Your task to perform on an android device: Set the phone to "Do not disturb". Image 0: 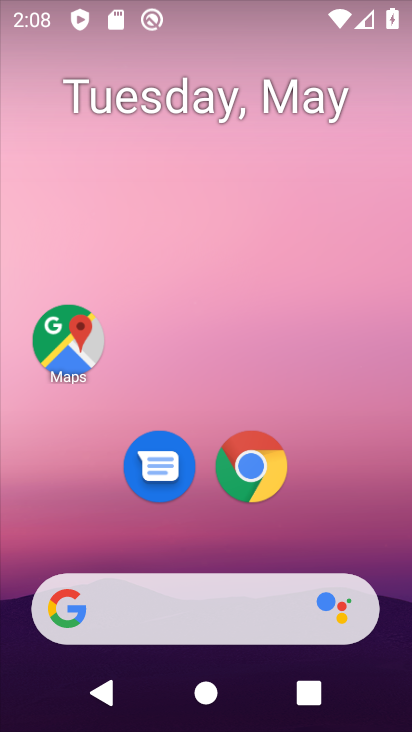
Step 0: drag from (331, 537) to (329, 20)
Your task to perform on an android device: Set the phone to "Do not disturb". Image 1: 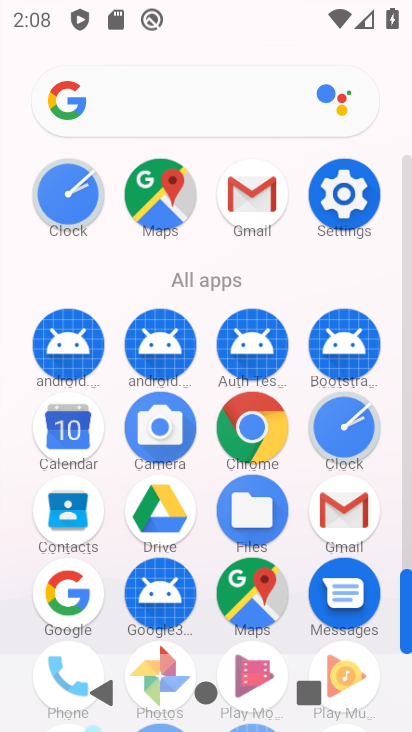
Step 1: click (339, 210)
Your task to perform on an android device: Set the phone to "Do not disturb". Image 2: 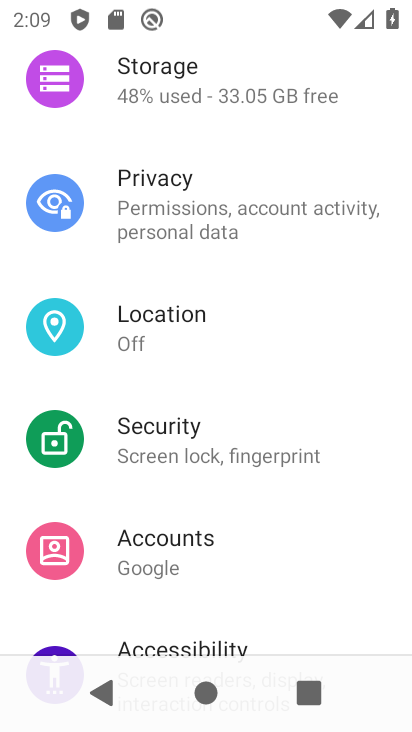
Step 2: drag from (139, 508) to (175, 241)
Your task to perform on an android device: Set the phone to "Do not disturb". Image 3: 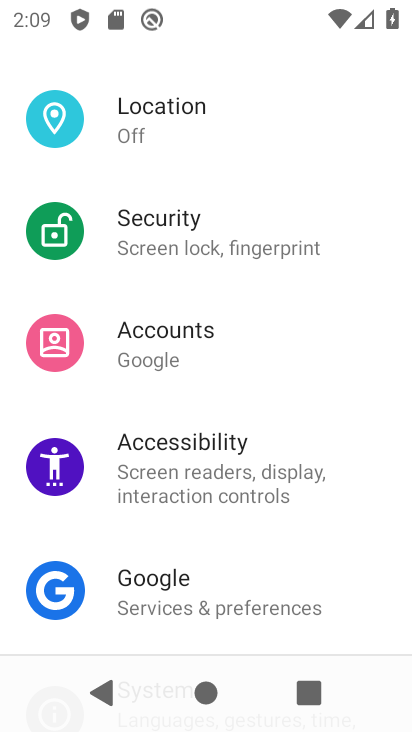
Step 3: drag from (214, 555) to (203, 730)
Your task to perform on an android device: Set the phone to "Do not disturb". Image 4: 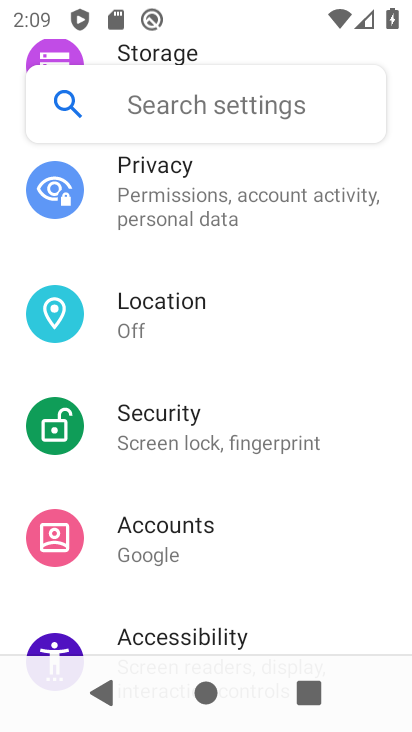
Step 4: drag from (271, 307) to (283, 633)
Your task to perform on an android device: Set the phone to "Do not disturb". Image 5: 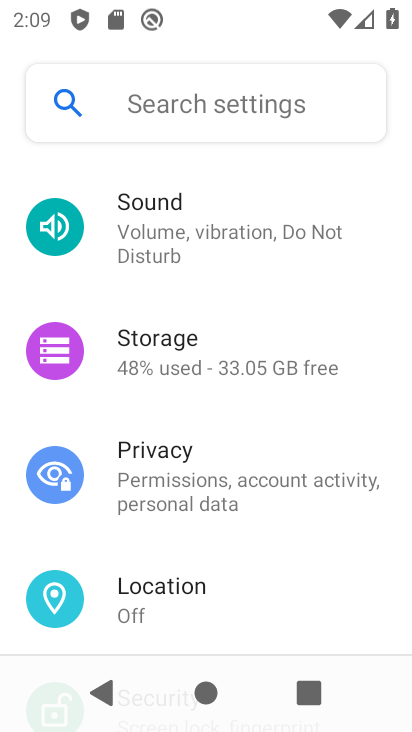
Step 5: click (247, 247)
Your task to perform on an android device: Set the phone to "Do not disturb". Image 6: 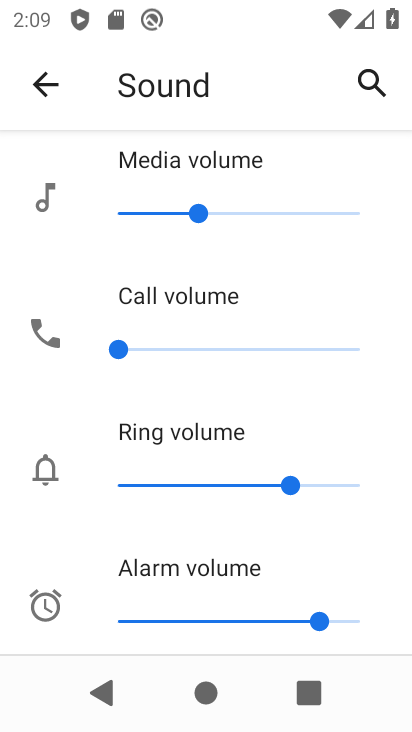
Step 6: drag from (144, 650) to (254, 264)
Your task to perform on an android device: Set the phone to "Do not disturb". Image 7: 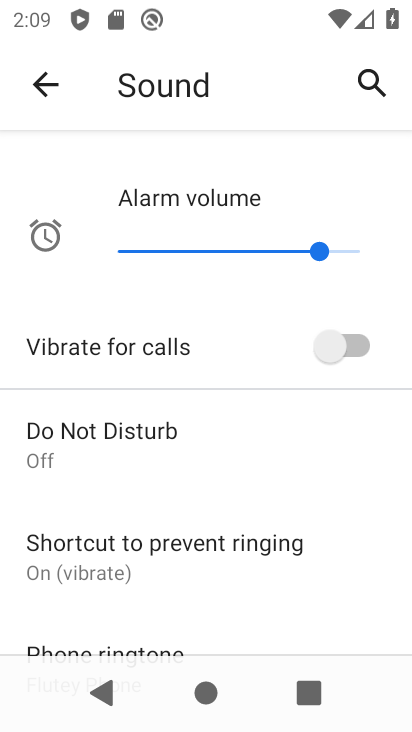
Step 7: click (117, 436)
Your task to perform on an android device: Set the phone to "Do not disturb". Image 8: 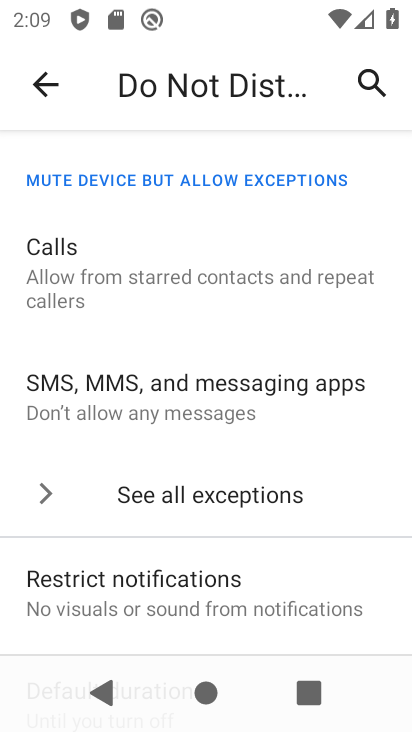
Step 8: drag from (172, 566) to (181, 184)
Your task to perform on an android device: Set the phone to "Do not disturb". Image 9: 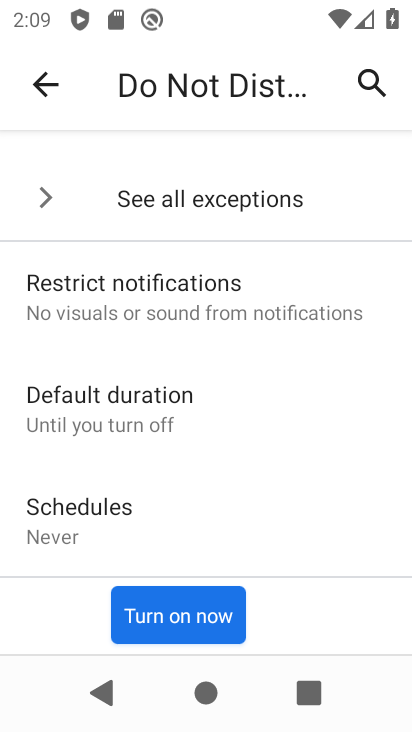
Step 9: click (159, 602)
Your task to perform on an android device: Set the phone to "Do not disturb". Image 10: 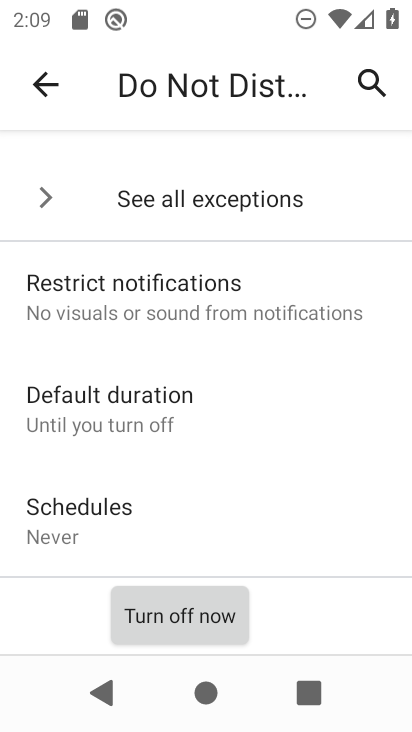
Step 10: task complete